Your task to perform on an android device: See recent photos Image 0: 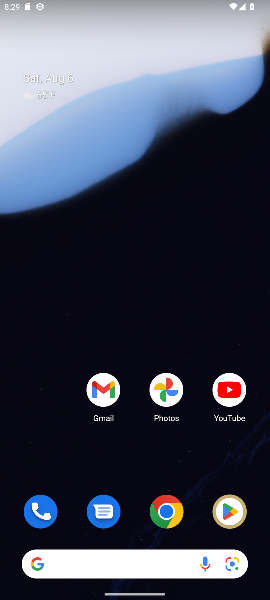
Step 0: press home button
Your task to perform on an android device: See recent photos Image 1: 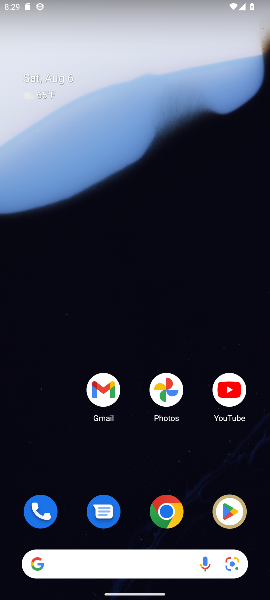
Step 1: click (161, 508)
Your task to perform on an android device: See recent photos Image 2: 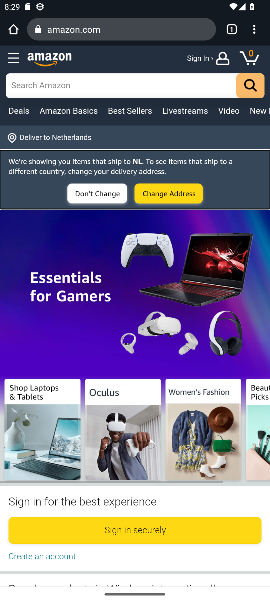
Step 2: press home button
Your task to perform on an android device: See recent photos Image 3: 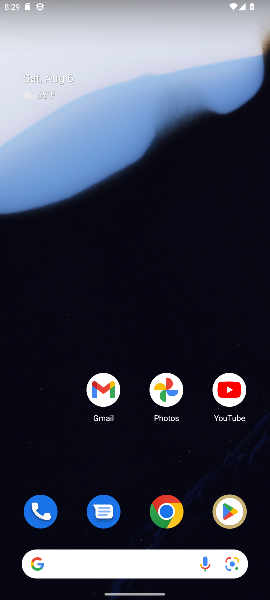
Step 3: drag from (202, 473) to (214, 118)
Your task to perform on an android device: See recent photos Image 4: 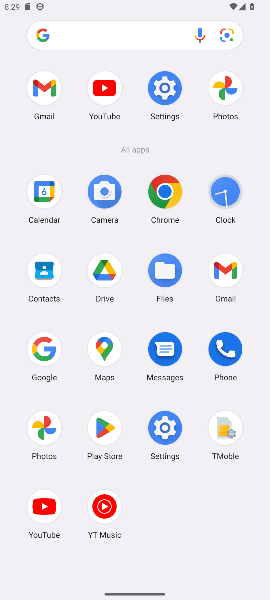
Step 4: click (53, 425)
Your task to perform on an android device: See recent photos Image 5: 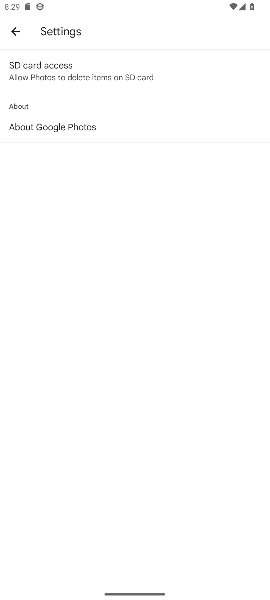
Step 5: click (0, 13)
Your task to perform on an android device: See recent photos Image 6: 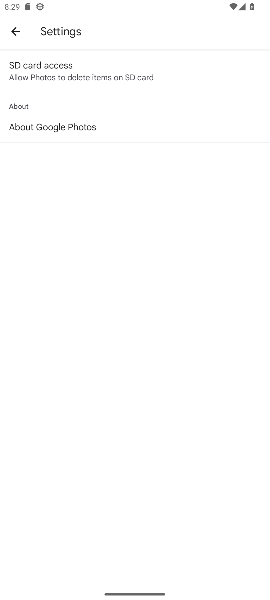
Step 6: click (11, 31)
Your task to perform on an android device: See recent photos Image 7: 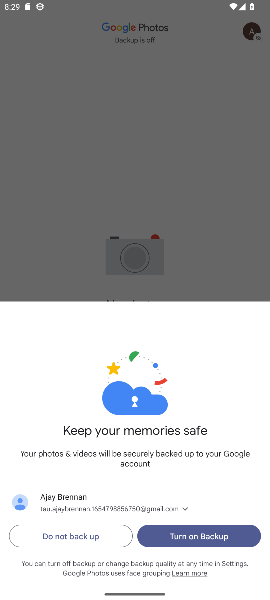
Step 7: click (45, 540)
Your task to perform on an android device: See recent photos Image 8: 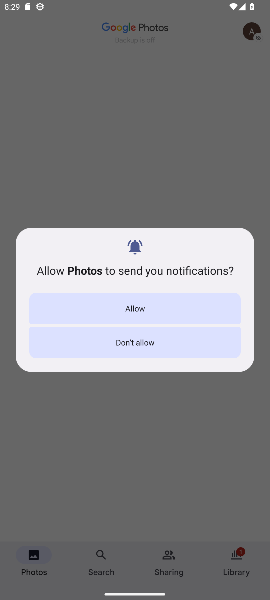
Step 8: click (234, 301)
Your task to perform on an android device: See recent photos Image 9: 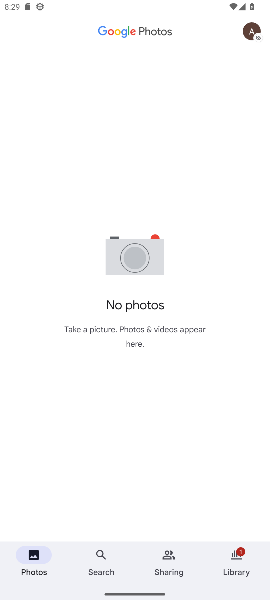
Step 9: task complete